Your task to perform on an android device: Open calendar and show me the second week of next month Image 0: 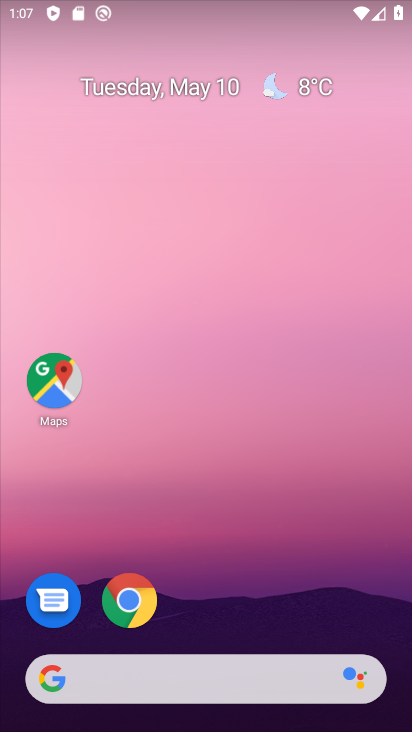
Step 0: drag from (208, 636) to (203, 141)
Your task to perform on an android device: Open calendar and show me the second week of next month Image 1: 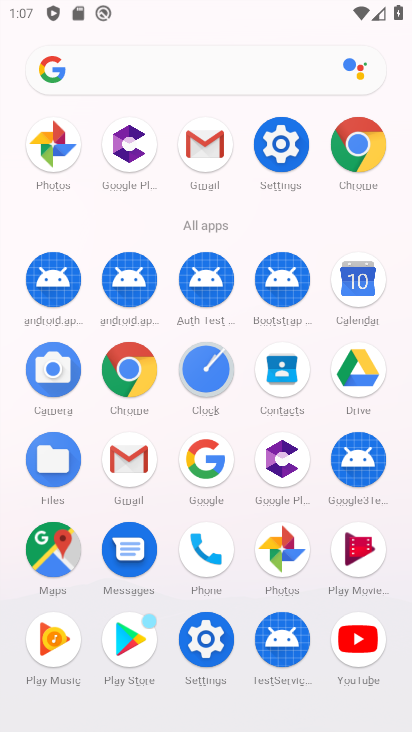
Step 1: click (355, 277)
Your task to perform on an android device: Open calendar and show me the second week of next month Image 2: 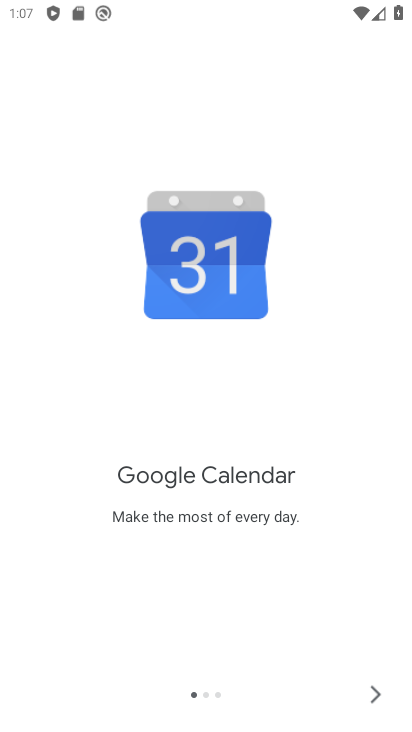
Step 2: click (369, 688)
Your task to perform on an android device: Open calendar and show me the second week of next month Image 3: 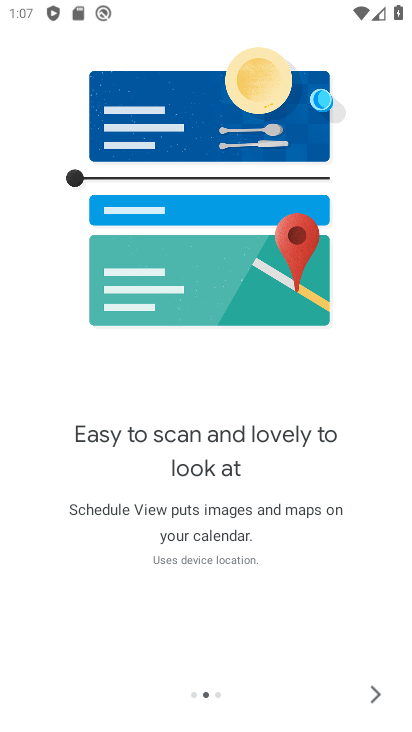
Step 3: click (363, 687)
Your task to perform on an android device: Open calendar and show me the second week of next month Image 4: 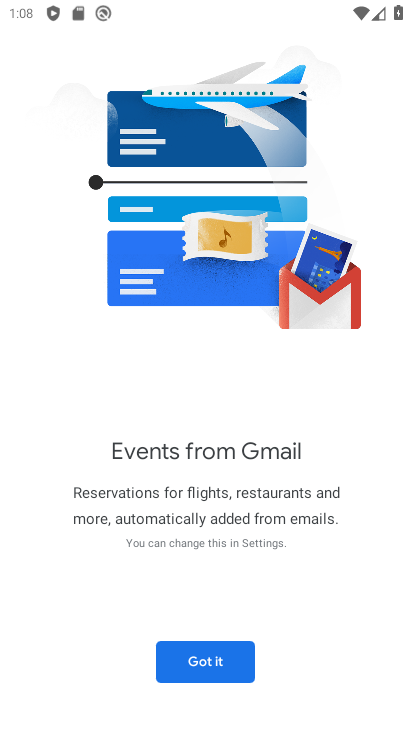
Step 4: click (204, 660)
Your task to perform on an android device: Open calendar and show me the second week of next month Image 5: 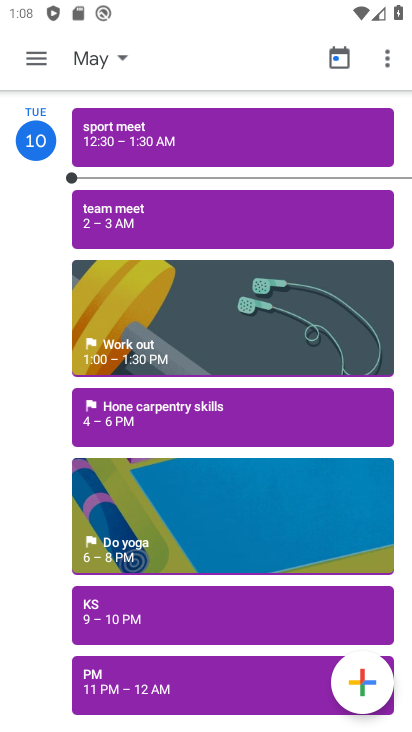
Step 5: click (35, 51)
Your task to perform on an android device: Open calendar and show me the second week of next month Image 6: 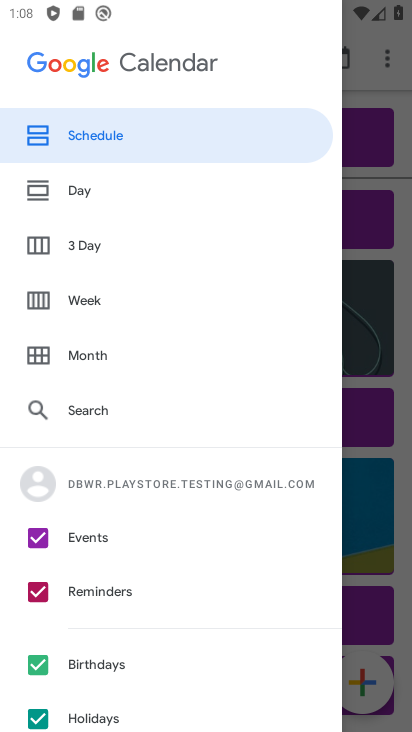
Step 6: click (76, 300)
Your task to perform on an android device: Open calendar and show me the second week of next month Image 7: 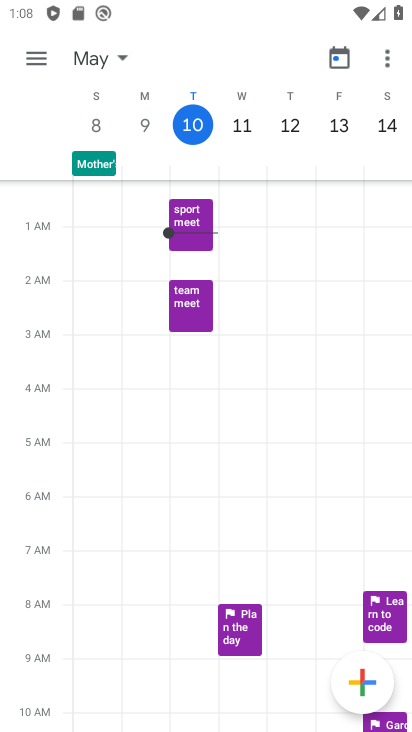
Step 7: drag from (377, 116) to (100, 107)
Your task to perform on an android device: Open calendar and show me the second week of next month Image 8: 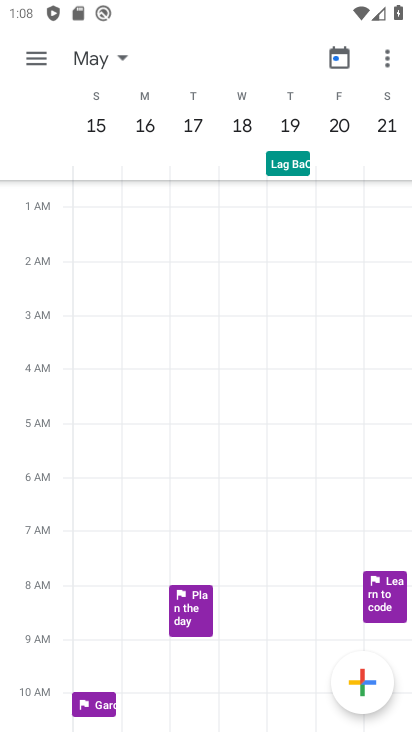
Step 8: drag from (372, 130) to (37, 115)
Your task to perform on an android device: Open calendar and show me the second week of next month Image 9: 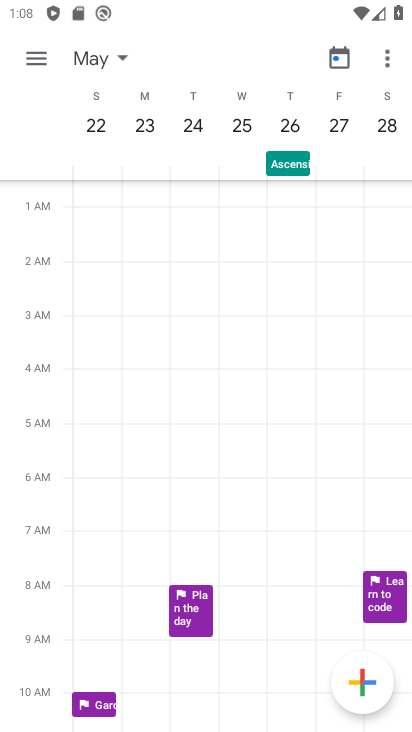
Step 9: drag from (387, 130) to (35, 130)
Your task to perform on an android device: Open calendar and show me the second week of next month Image 10: 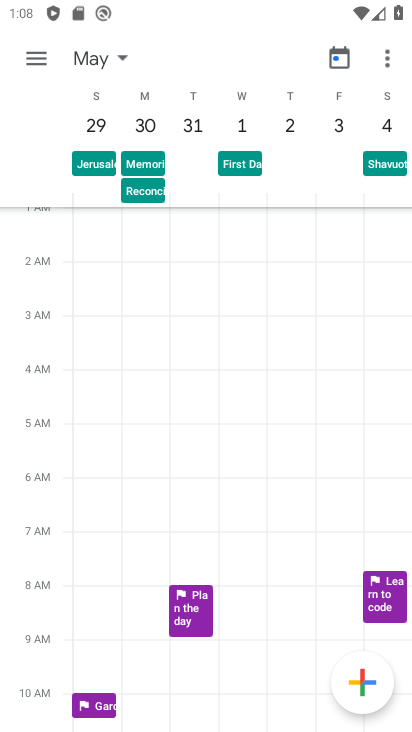
Step 10: drag from (385, 127) to (0, 128)
Your task to perform on an android device: Open calendar and show me the second week of next month Image 11: 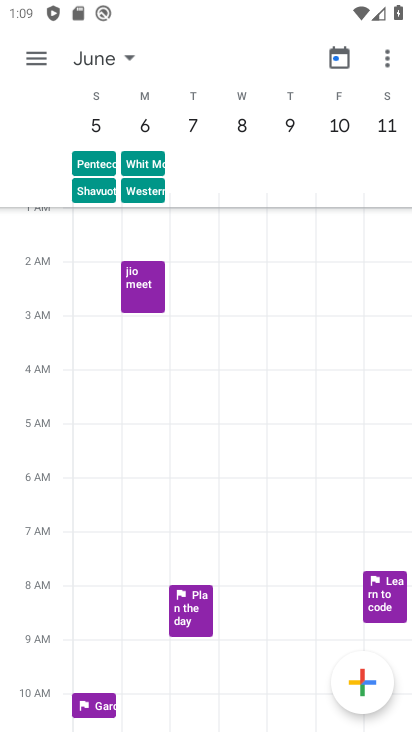
Step 11: click (97, 125)
Your task to perform on an android device: Open calendar and show me the second week of next month Image 12: 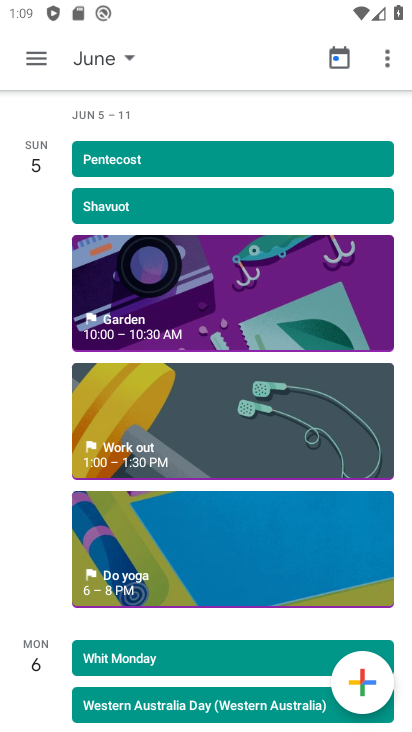
Step 12: task complete